Your task to perform on an android device: Is it going to rain tomorrow? Image 0: 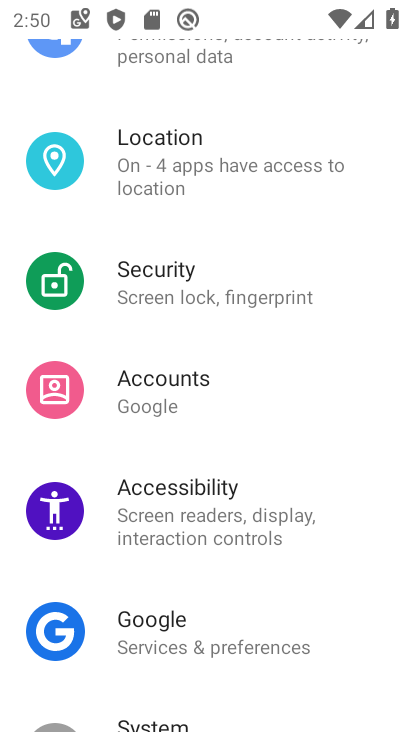
Step 0: press home button
Your task to perform on an android device: Is it going to rain tomorrow? Image 1: 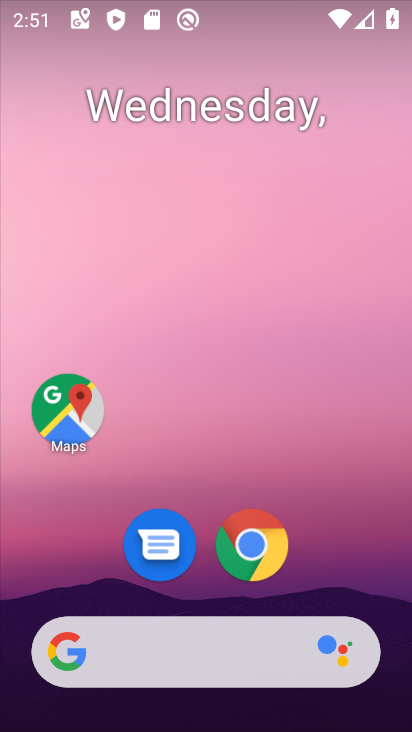
Step 1: click (81, 653)
Your task to perform on an android device: Is it going to rain tomorrow? Image 2: 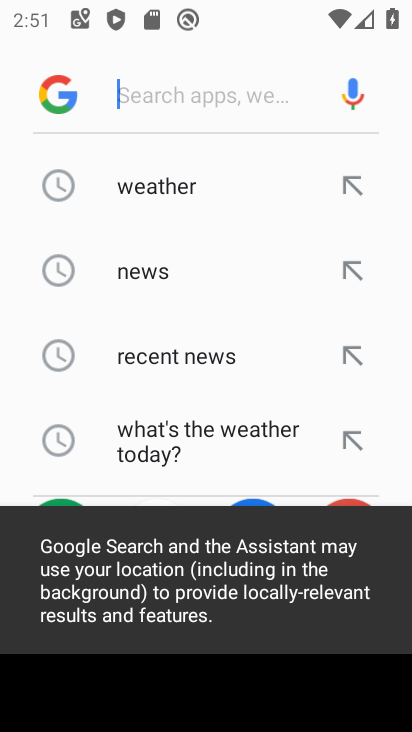
Step 2: click (179, 185)
Your task to perform on an android device: Is it going to rain tomorrow? Image 3: 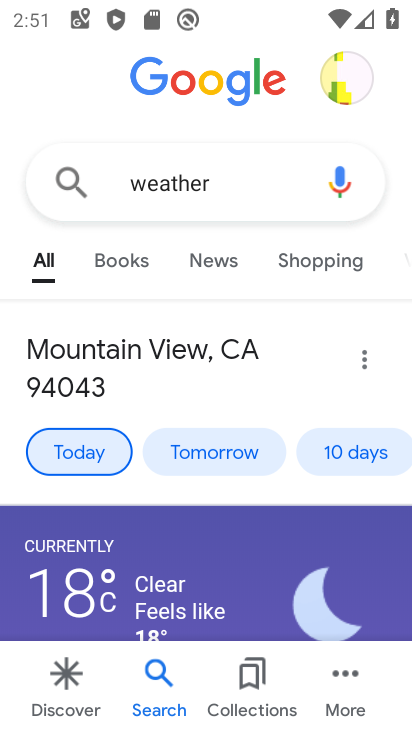
Step 3: task complete